Your task to perform on an android device: Go to settings Image 0: 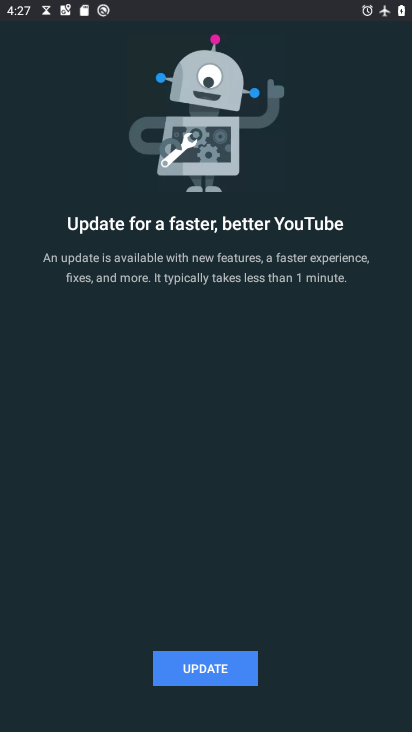
Step 0: press back button
Your task to perform on an android device: Go to settings Image 1: 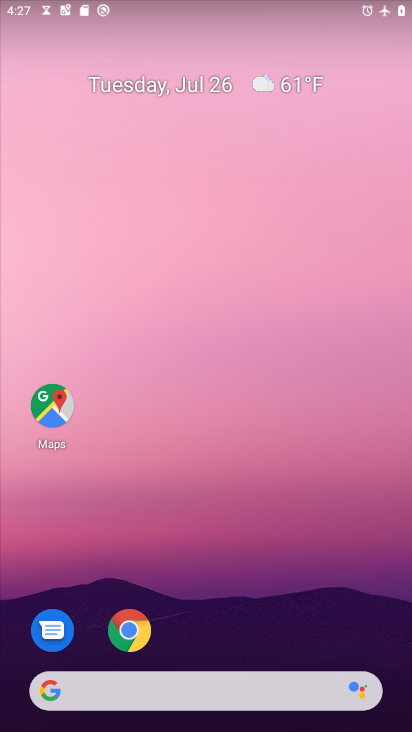
Step 1: drag from (224, 503) to (208, 52)
Your task to perform on an android device: Go to settings Image 2: 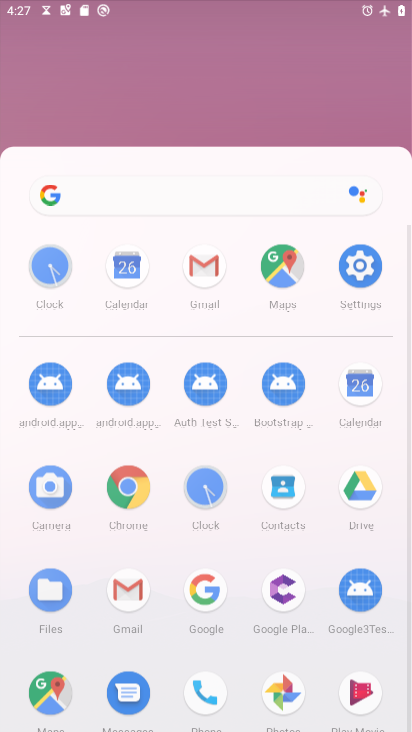
Step 2: click (217, 16)
Your task to perform on an android device: Go to settings Image 3: 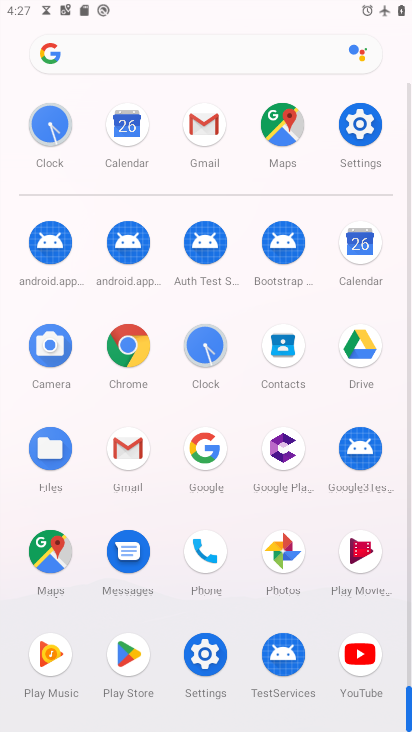
Step 3: click (205, 658)
Your task to perform on an android device: Go to settings Image 4: 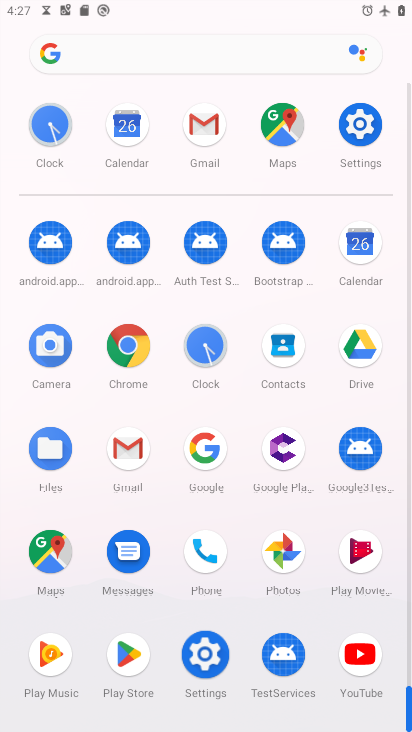
Step 4: click (204, 657)
Your task to perform on an android device: Go to settings Image 5: 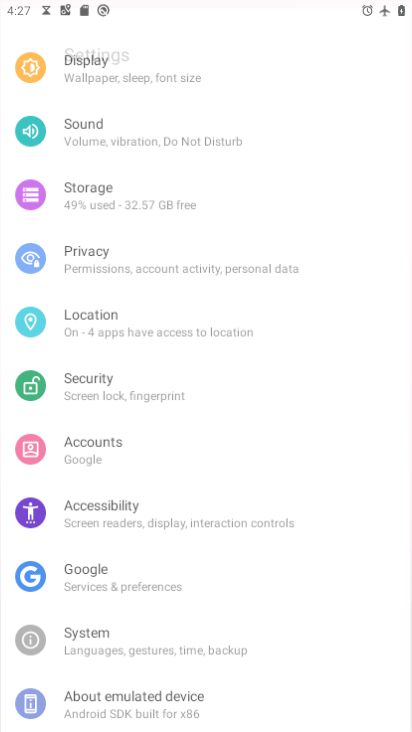
Step 5: click (204, 657)
Your task to perform on an android device: Go to settings Image 6: 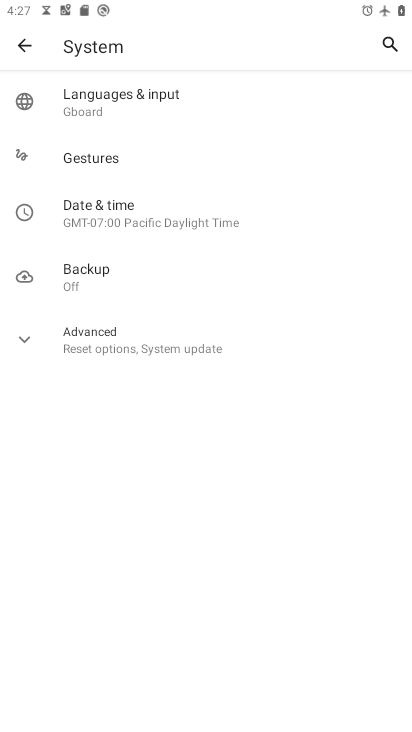
Step 6: drag from (175, 525) to (209, 43)
Your task to perform on an android device: Go to settings Image 7: 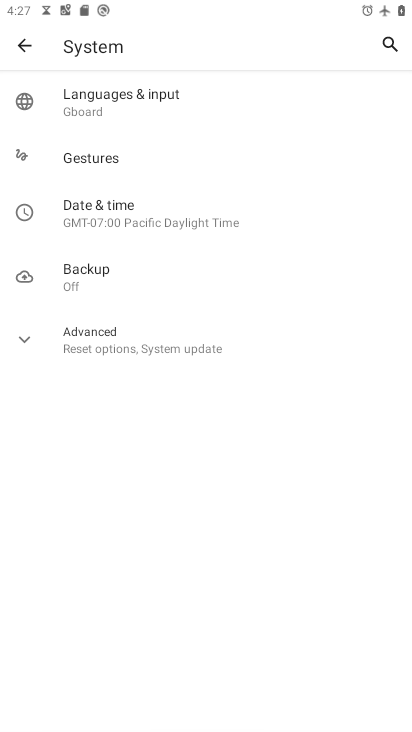
Step 7: click (27, 45)
Your task to perform on an android device: Go to settings Image 8: 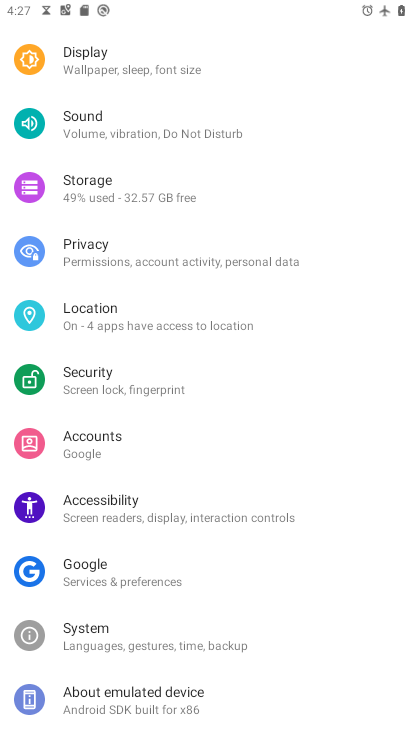
Step 8: task complete